Your task to perform on an android device: Turn off the flashlight Image 0: 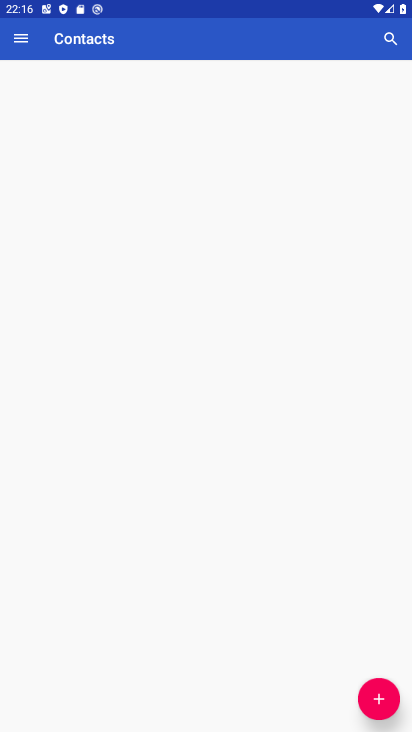
Step 0: drag from (188, 604) to (218, 264)
Your task to perform on an android device: Turn off the flashlight Image 1: 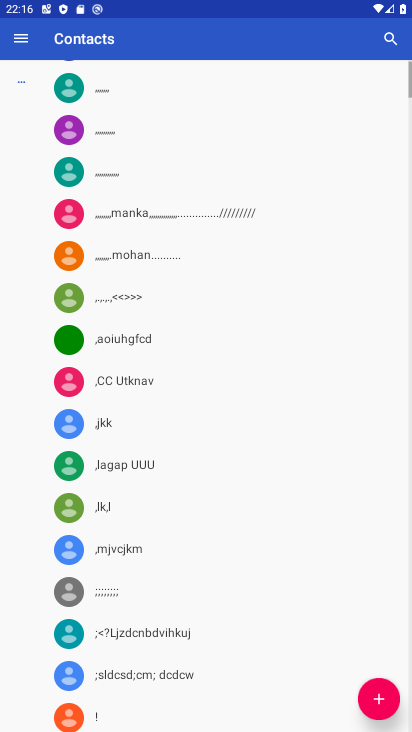
Step 1: press home button
Your task to perform on an android device: Turn off the flashlight Image 2: 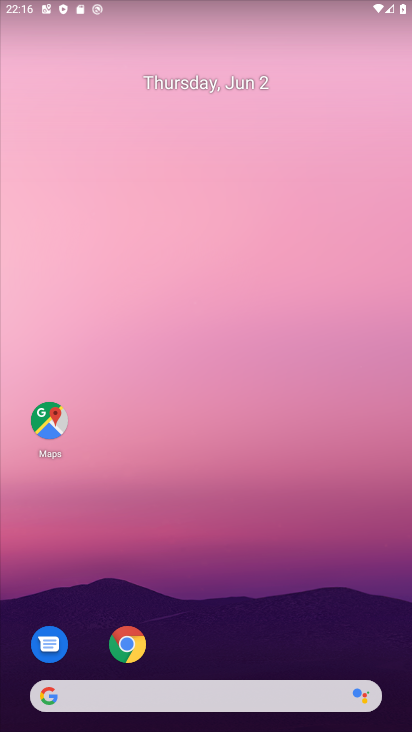
Step 2: drag from (211, 658) to (172, 257)
Your task to perform on an android device: Turn off the flashlight Image 3: 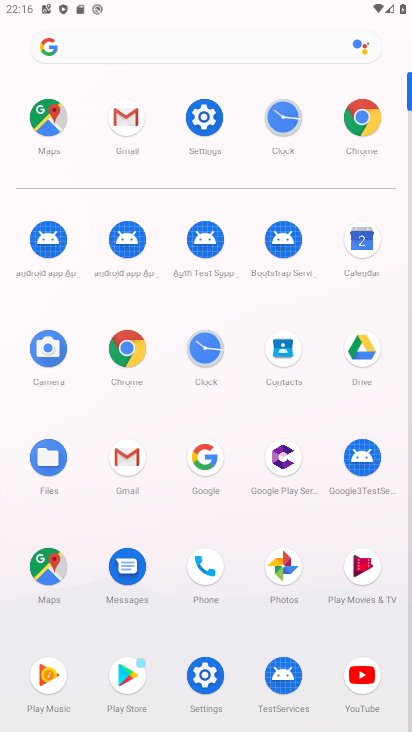
Step 3: click (210, 116)
Your task to perform on an android device: Turn off the flashlight Image 4: 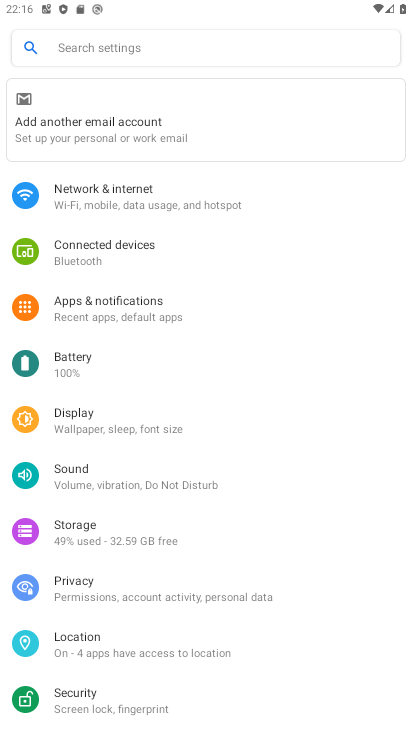
Step 4: task complete